Your task to perform on an android device: open app "Etsy: Buy & Sell Unique Items" (install if not already installed) and go to login screen Image 0: 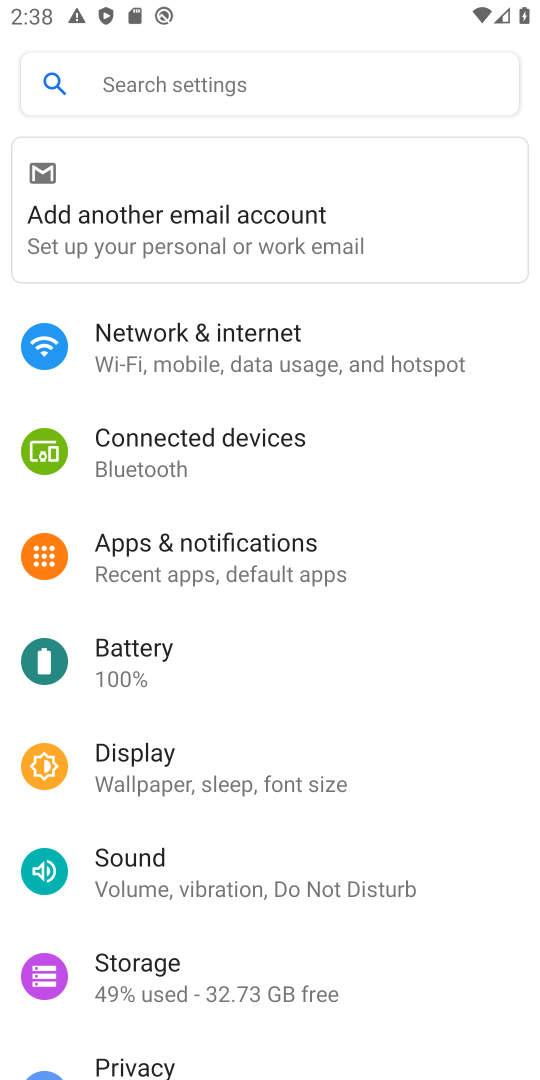
Step 0: press home button
Your task to perform on an android device: open app "Etsy: Buy & Sell Unique Items" (install if not already installed) and go to login screen Image 1: 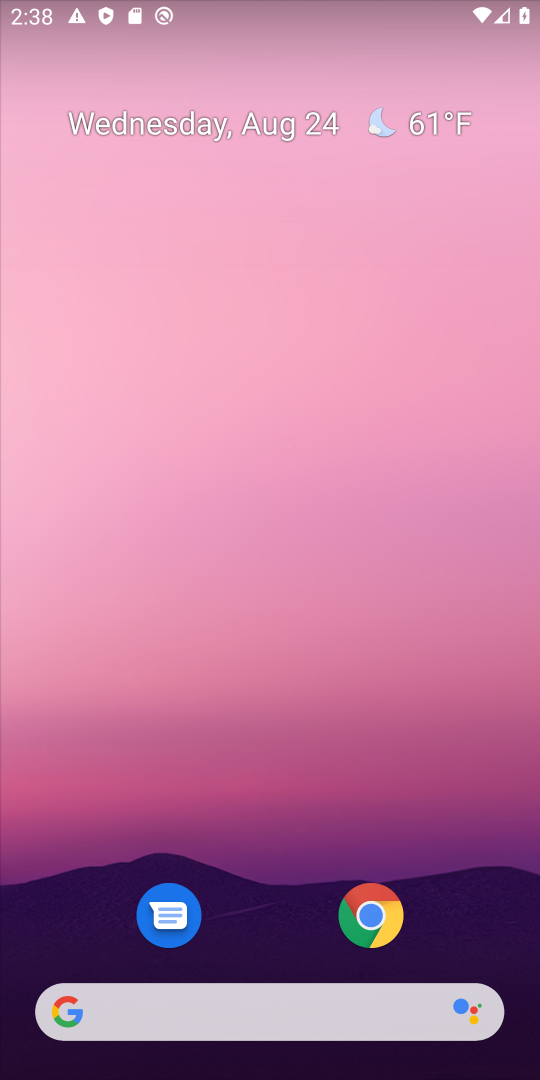
Step 1: drag from (231, 812) to (263, 348)
Your task to perform on an android device: open app "Etsy: Buy & Sell Unique Items" (install if not already installed) and go to login screen Image 2: 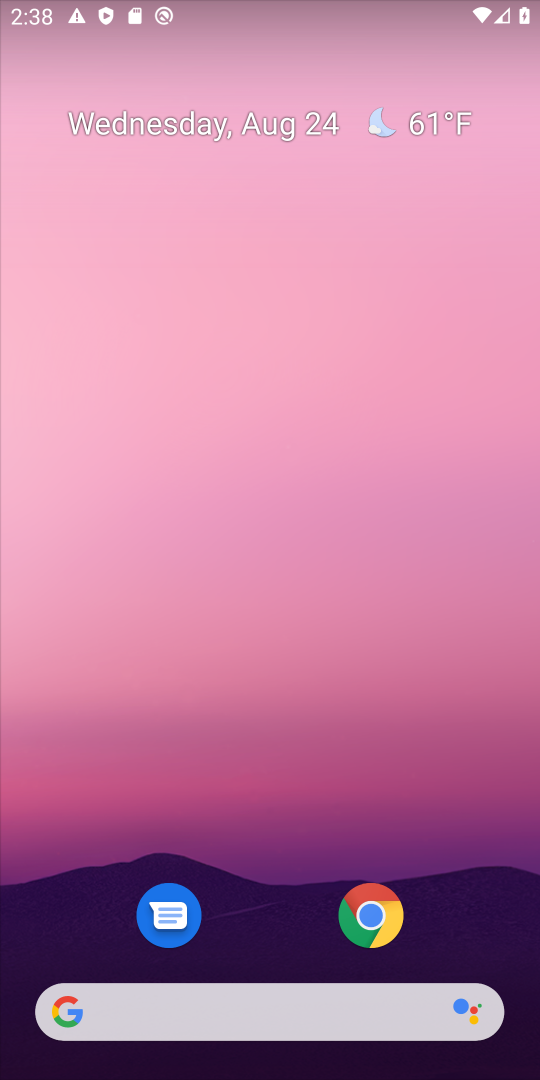
Step 2: drag from (245, 825) to (287, 50)
Your task to perform on an android device: open app "Etsy: Buy & Sell Unique Items" (install if not already installed) and go to login screen Image 3: 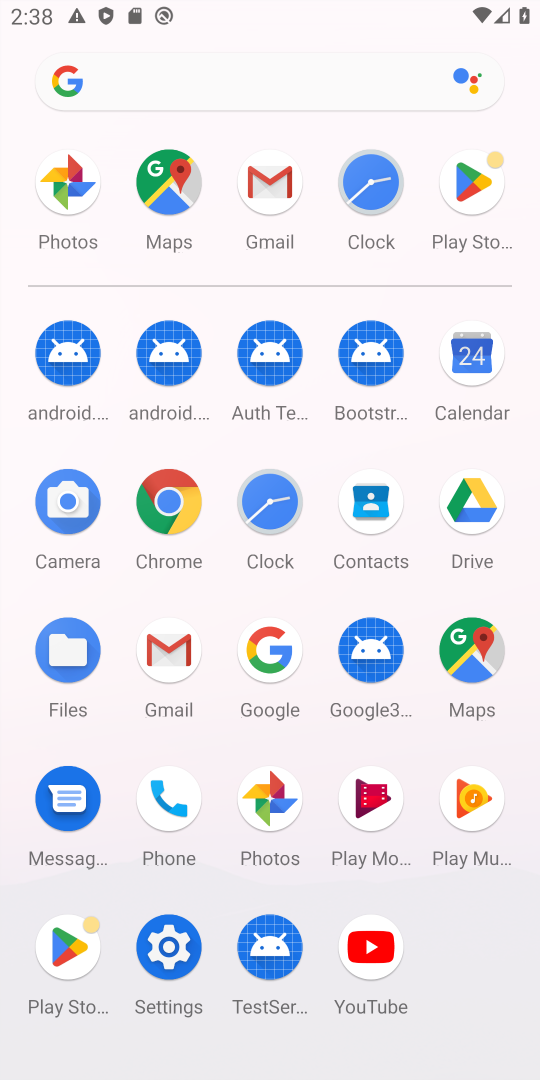
Step 3: click (461, 185)
Your task to perform on an android device: open app "Etsy: Buy & Sell Unique Items" (install if not already installed) and go to login screen Image 4: 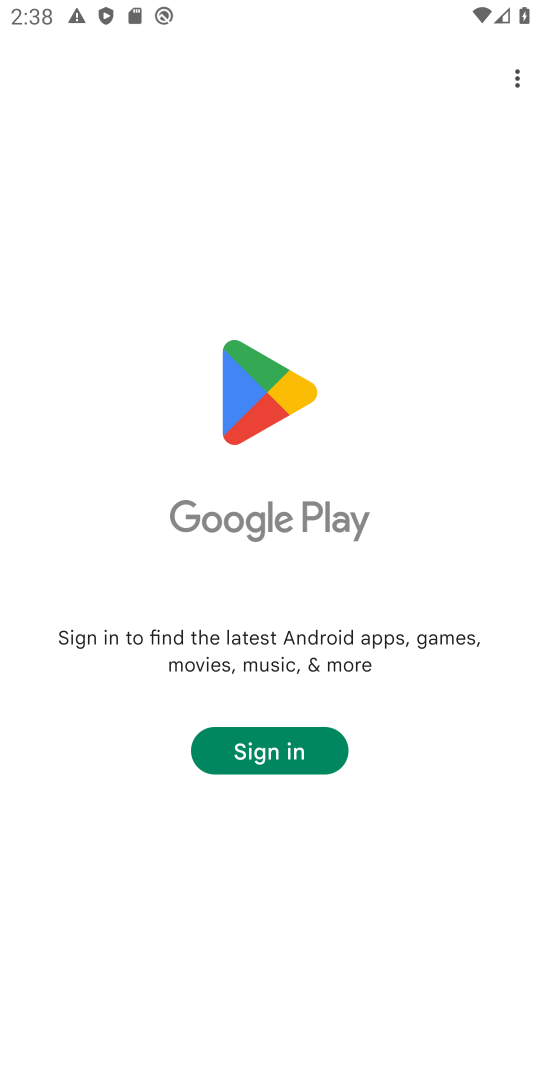
Step 4: task complete